Your task to perform on an android device: Clear all items from cart on amazon. Search for "acer predator" on amazon, select the first entry, and add it to the cart. Image 0: 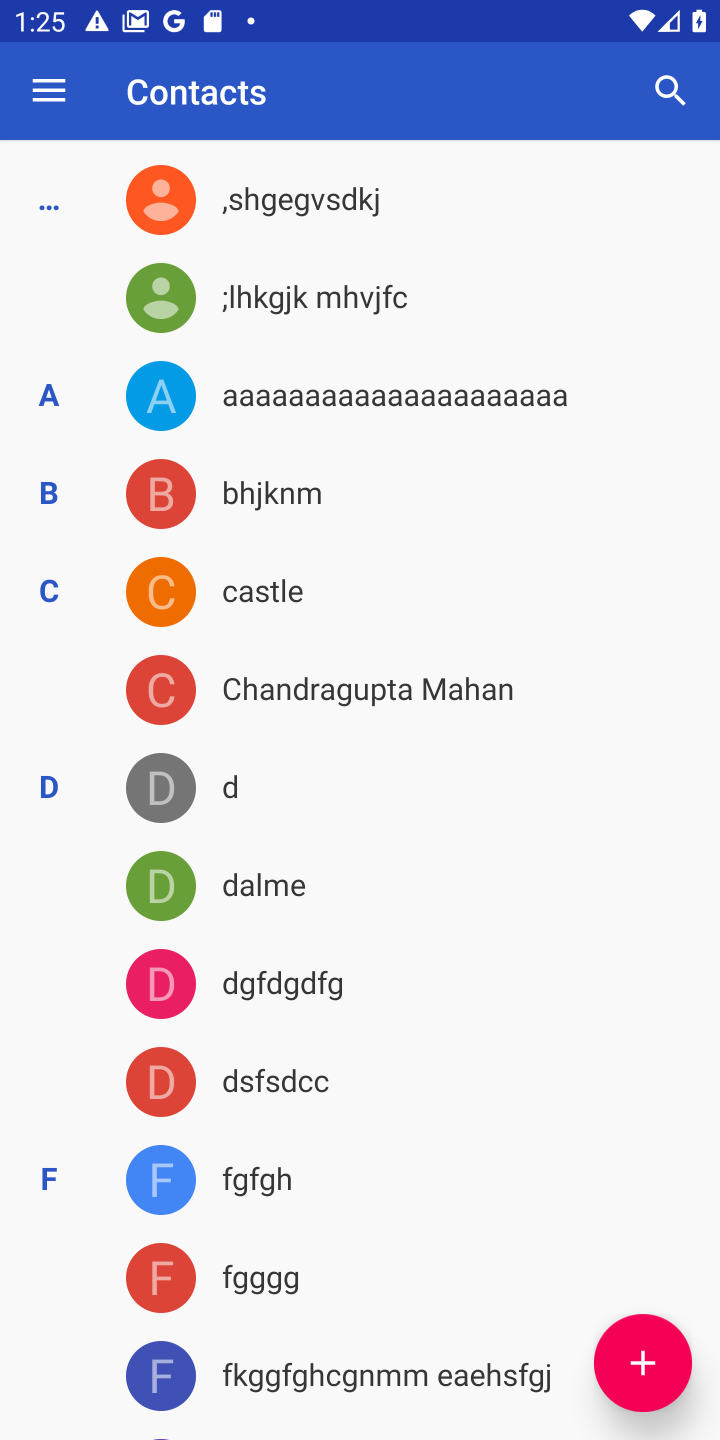
Step 0: press home button
Your task to perform on an android device: Clear all items from cart on amazon. Search for "acer predator" on amazon, select the first entry, and add it to the cart. Image 1: 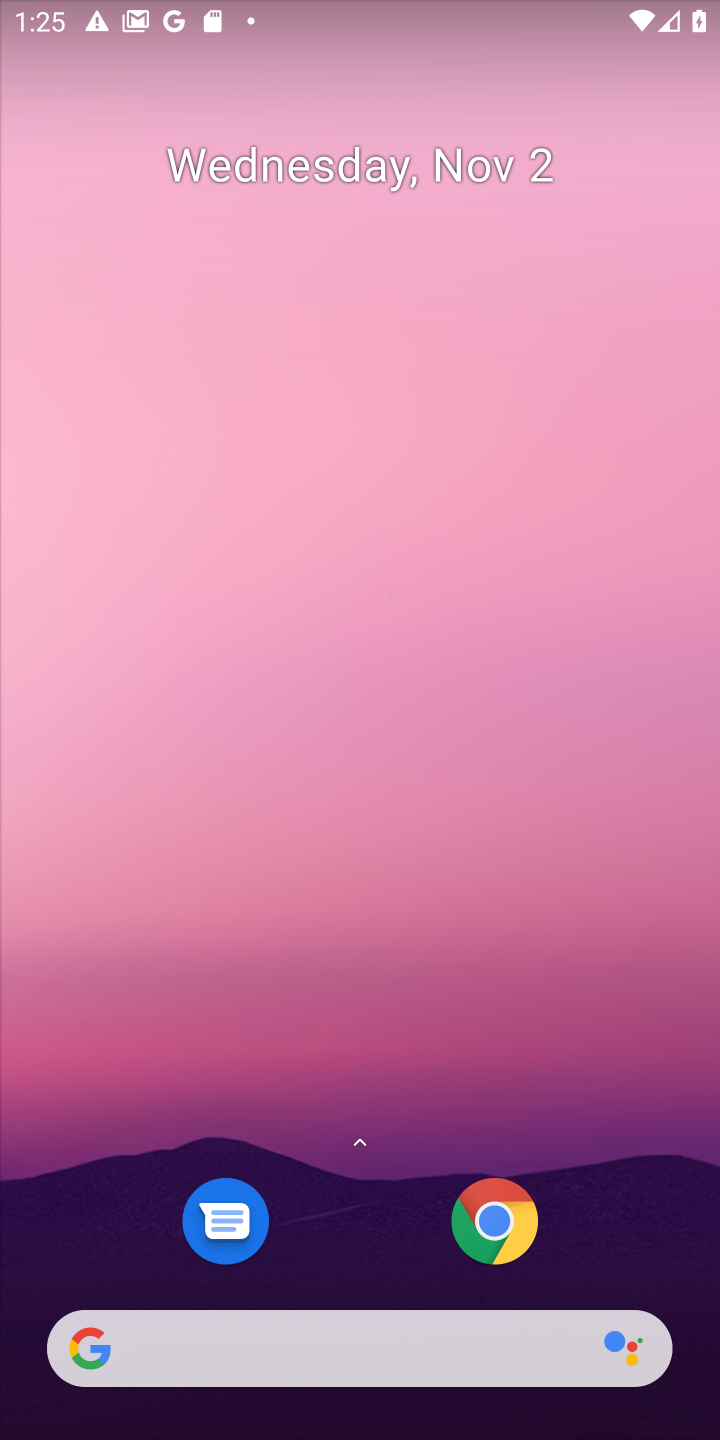
Step 1: click (264, 1374)
Your task to perform on an android device: Clear all items from cart on amazon. Search for "acer predator" on amazon, select the first entry, and add it to the cart. Image 2: 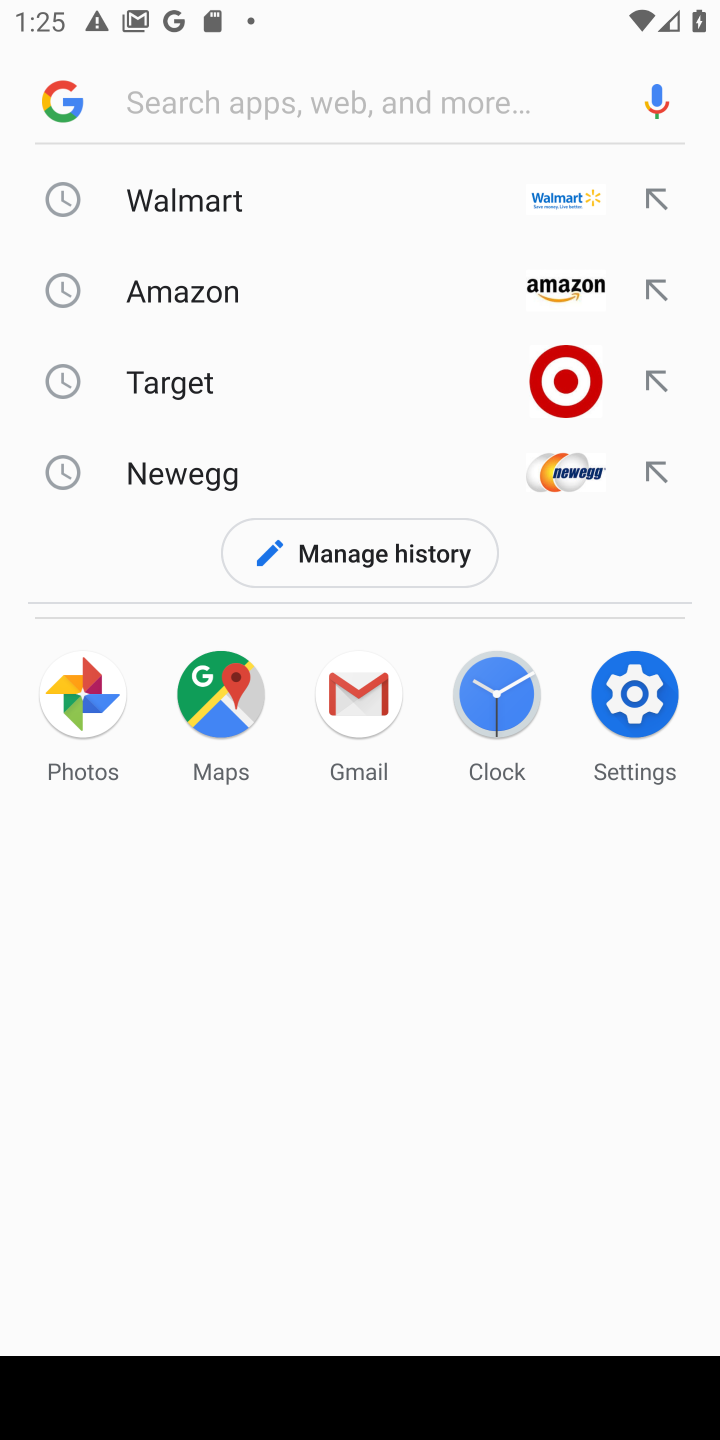
Step 2: click (280, 300)
Your task to perform on an android device: Clear all items from cart on amazon. Search for "acer predator" on amazon, select the first entry, and add it to the cart. Image 3: 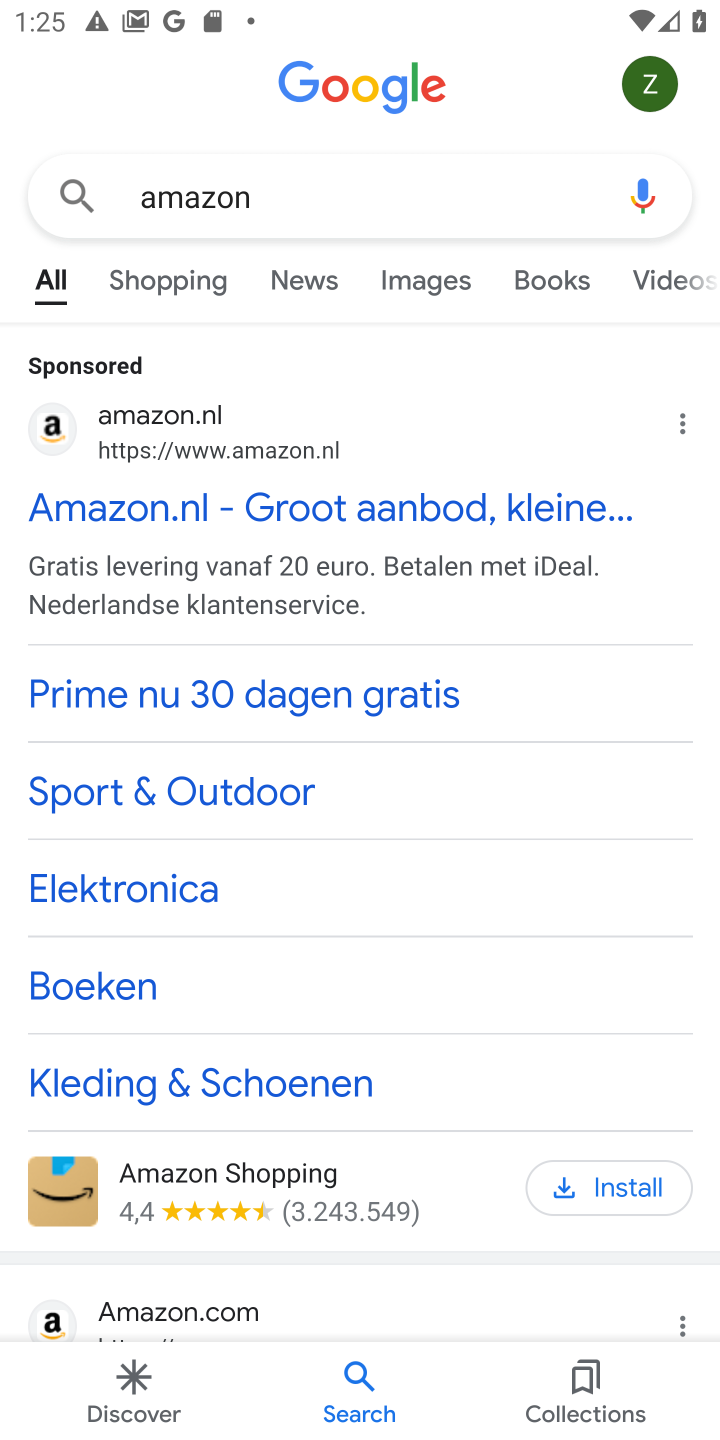
Step 3: click (221, 539)
Your task to perform on an android device: Clear all items from cart on amazon. Search for "acer predator" on amazon, select the first entry, and add it to the cart. Image 4: 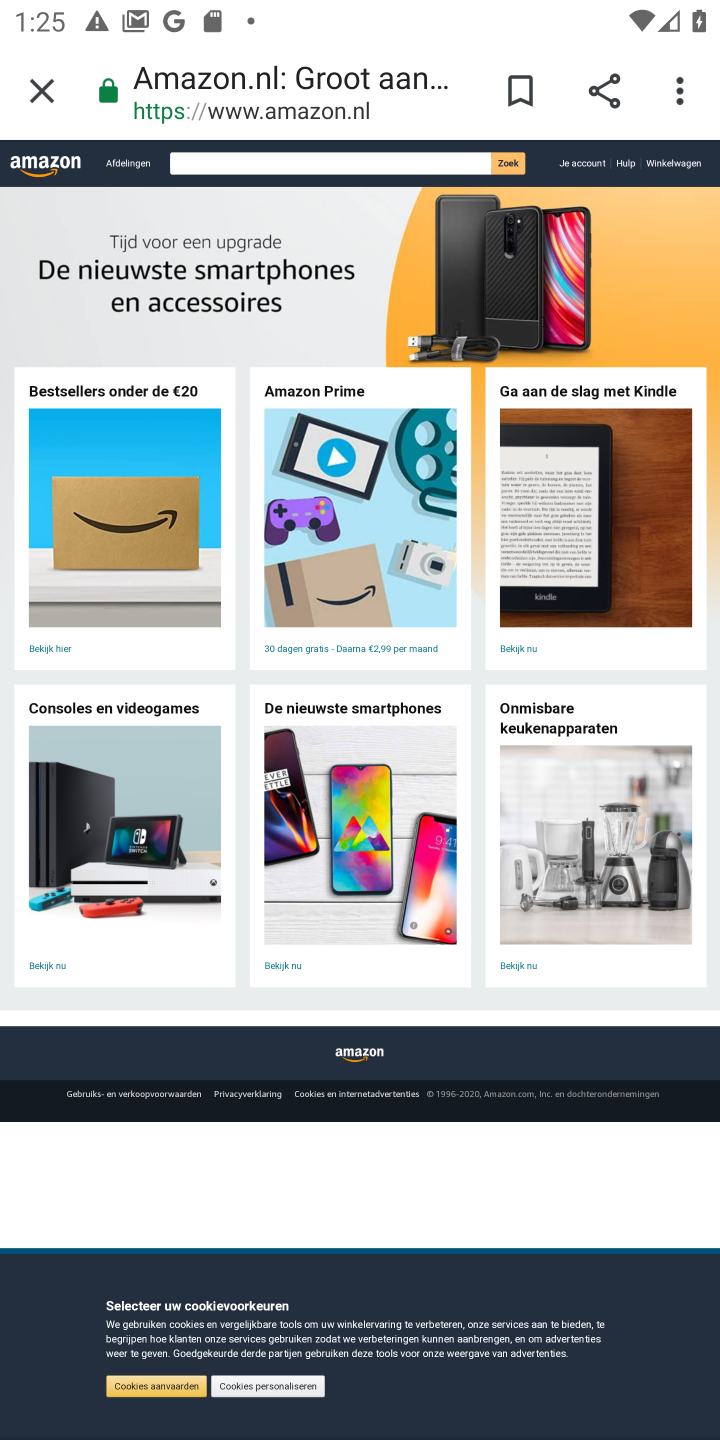
Step 4: click (346, 173)
Your task to perform on an android device: Clear all items from cart on amazon. Search for "acer predator" on amazon, select the first entry, and add it to the cart. Image 5: 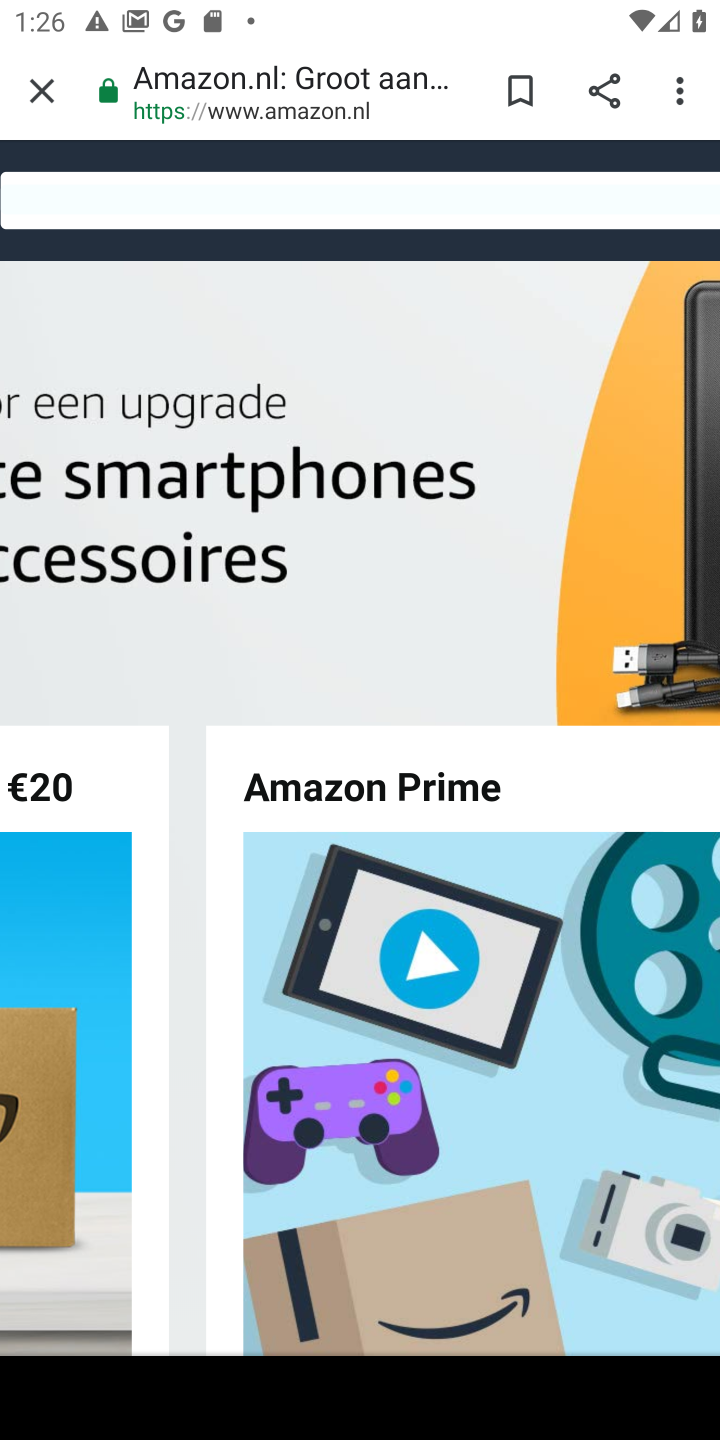
Step 5: type "acer predator"
Your task to perform on an android device: Clear all items from cart on amazon. Search for "acer predator" on amazon, select the first entry, and add it to the cart. Image 6: 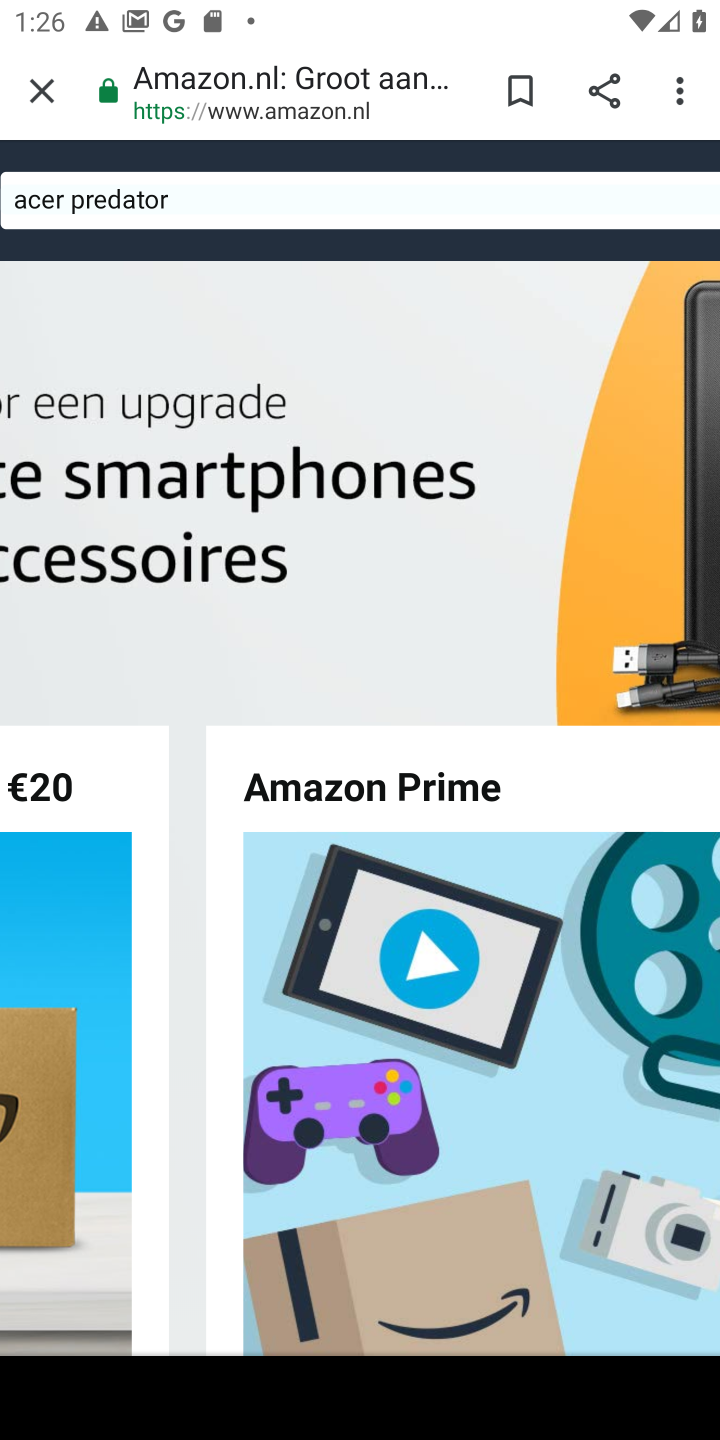
Step 6: click (328, 190)
Your task to perform on an android device: Clear all items from cart on amazon. Search for "acer predator" on amazon, select the first entry, and add it to the cart. Image 7: 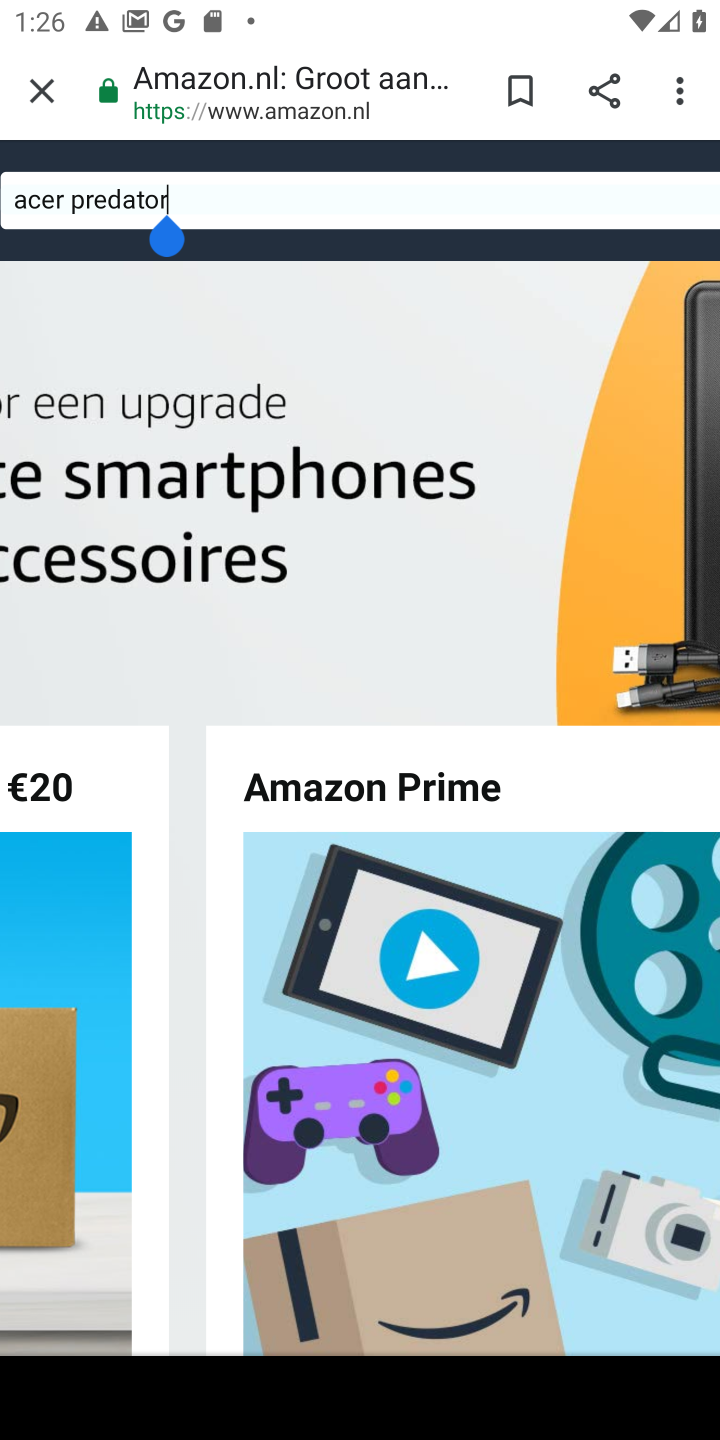
Step 7: task complete